Your task to perform on an android device: open app "Walmart Shopping & Grocery" (install if not already installed) and enter user name: "Hans@icloud.com" and password: "executing" Image 0: 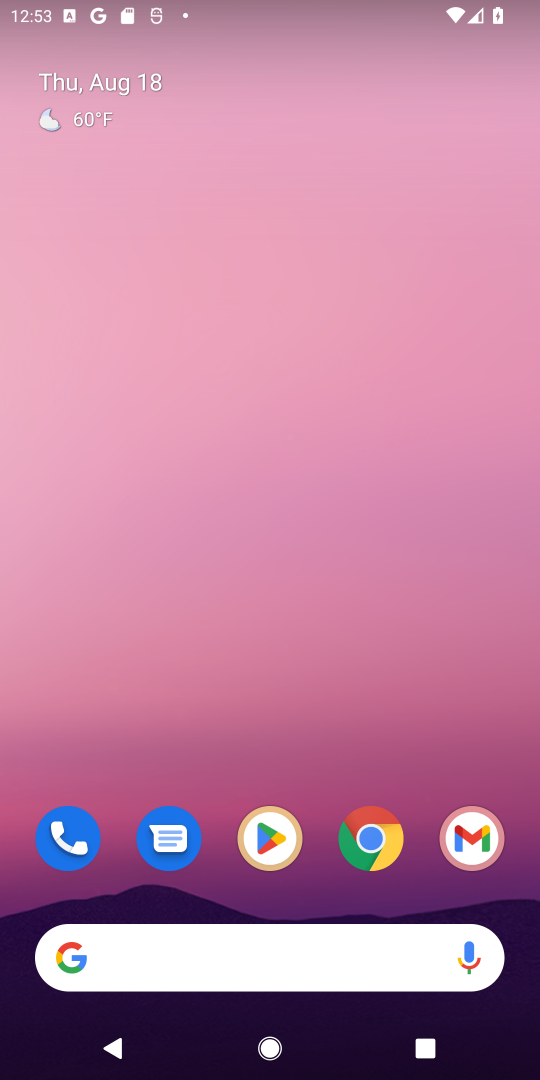
Step 0: click (273, 833)
Your task to perform on an android device: open app "Walmart Shopping & Grocery" (install if not already installed) and enter user name: "Hans@icloud.com" and password: "executing" Image 1: 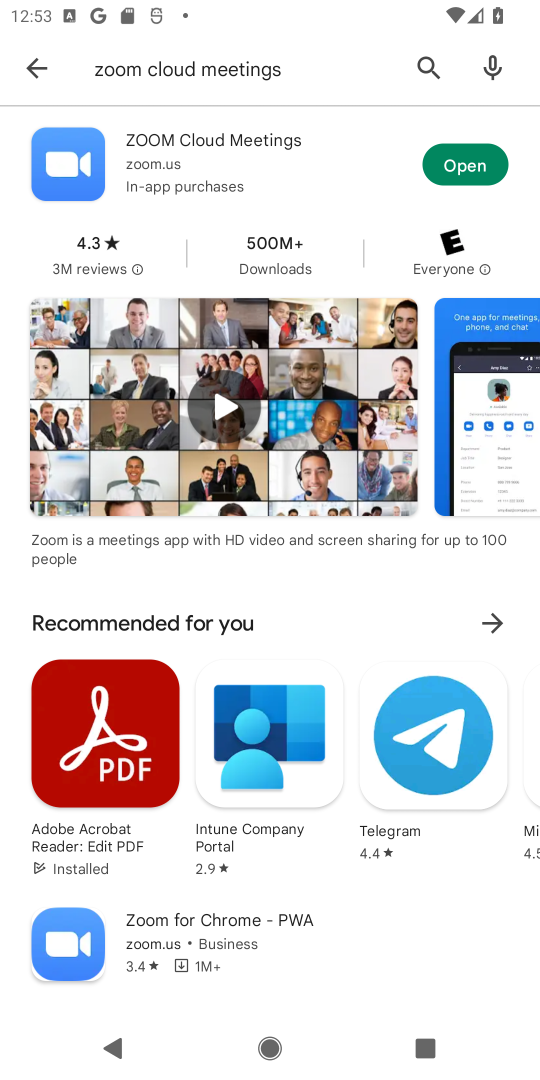
Step 1: click (421, 65)
Your task to perform on an android device: open app "Walmart Shopping & Grocery" (install if not already installed) and enter user name: "Hans@icloud.com" and password: "executing" Image 2: 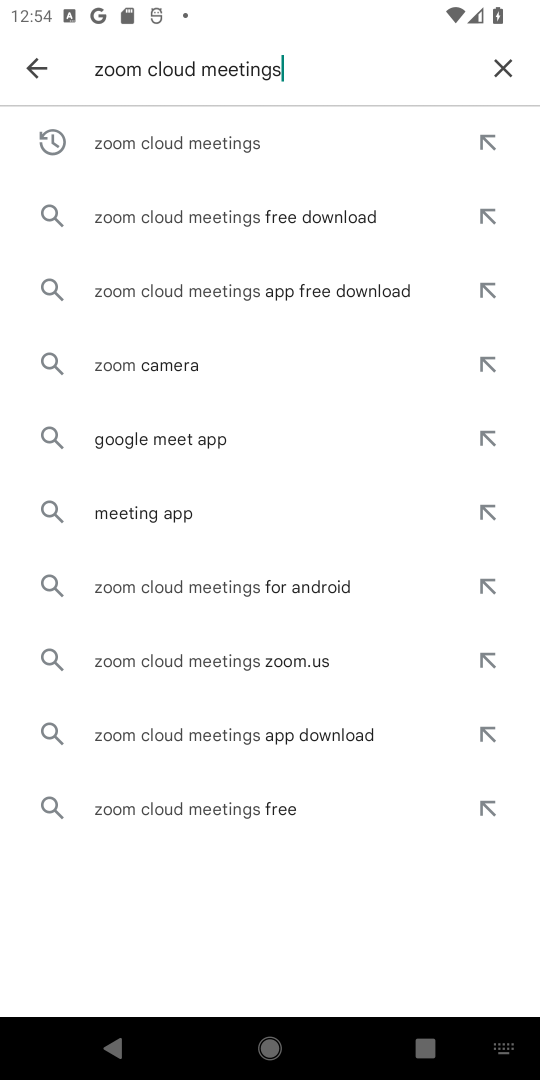
Step 2: click (487, 65)
Your task to perform on an android device: open app "Walmart Shopping & Grocery" (install if not already installed) and enter user name: "Hans@icloud.com" and password: "executing" Image 3: 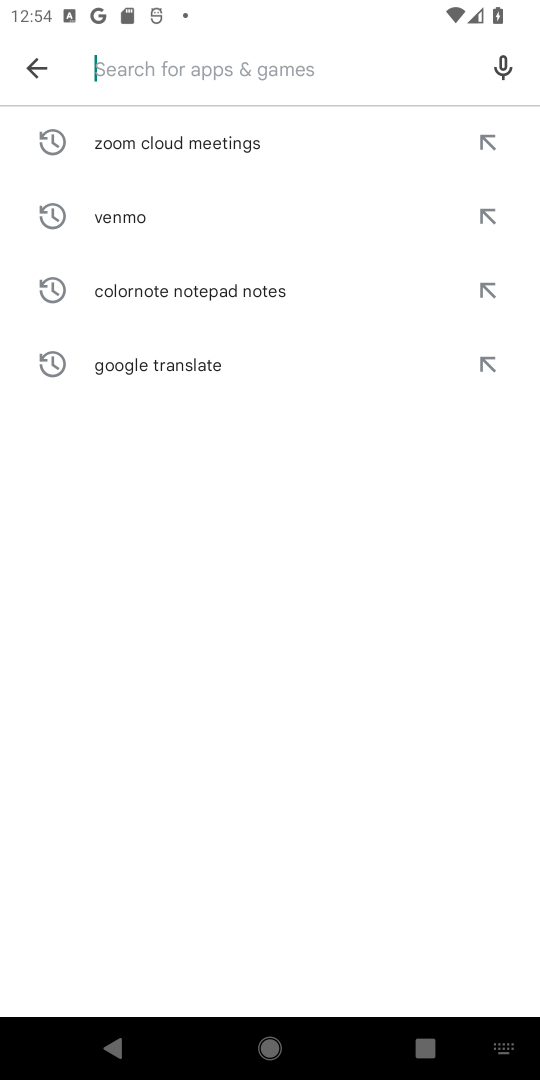
Step 3: type "Walmart Shopping & Grocery"
Your task to perform on an android device: open app "Walmart Shopping & Grocery" (install if not already installed) and enter user name: "Hans@icloud.com" and password: "executing" Image 4: 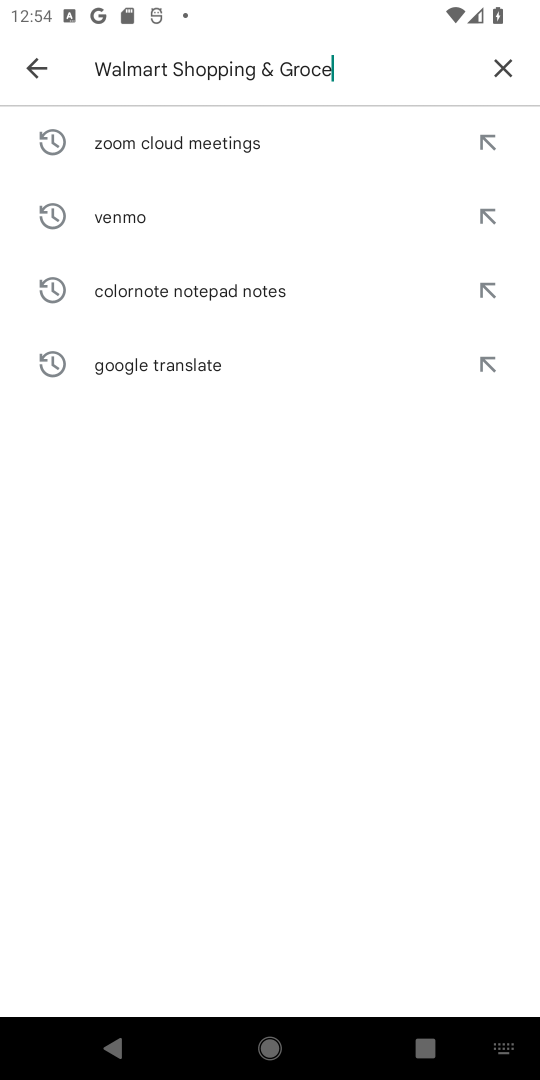
Step 4: type ""
Your task to perform on an android device: open app "Walmart Shopping & Grocery" (install if not already installed) and enter user name: "Hans@icloud.com" and password: "executing" Image 5: 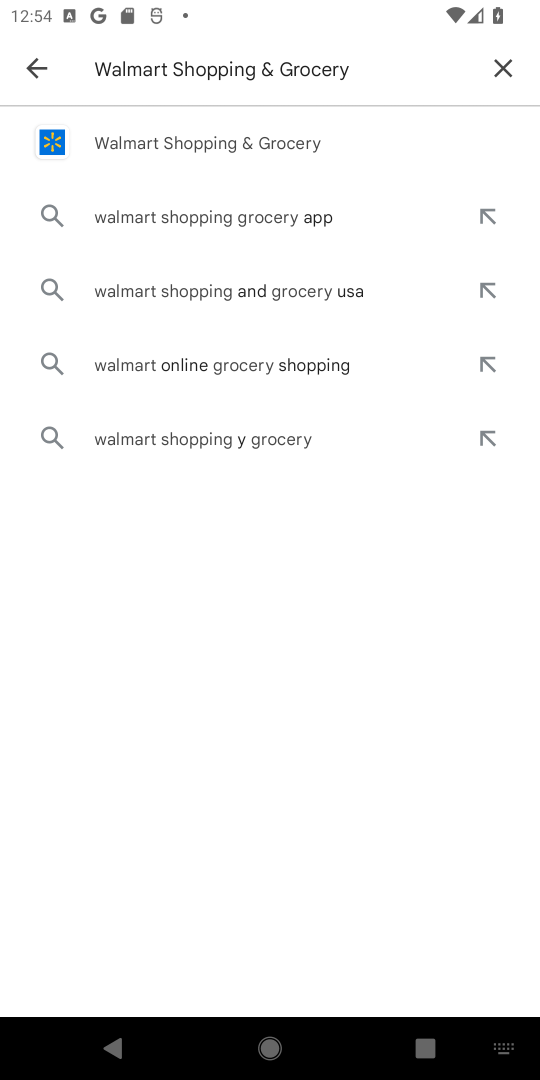
Step 5: click (173, 150)
Your task to perform on an android device: open app "Walmart Shopping & Grocery" (install if not already installed) and enter user name: "Hans@icloud.com" and password: "executing" Image 6: 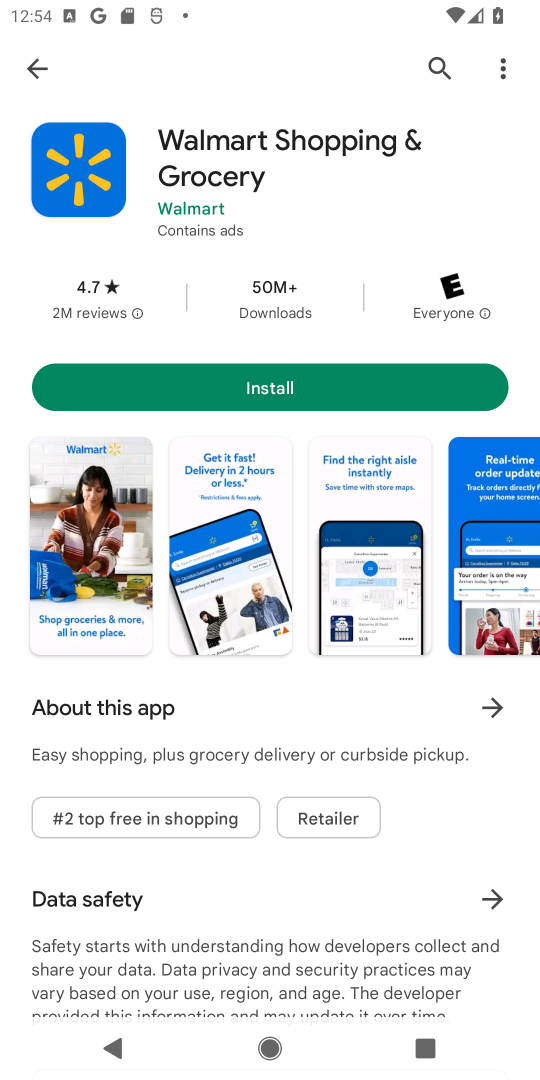
Step 6: click (271, 402)
Your task to perform on an android device: open app "Walmart Shopping & Grocery" (install if not already installed) and enter user name: "Hans@icloud.com" and password: "executing" Image 7: 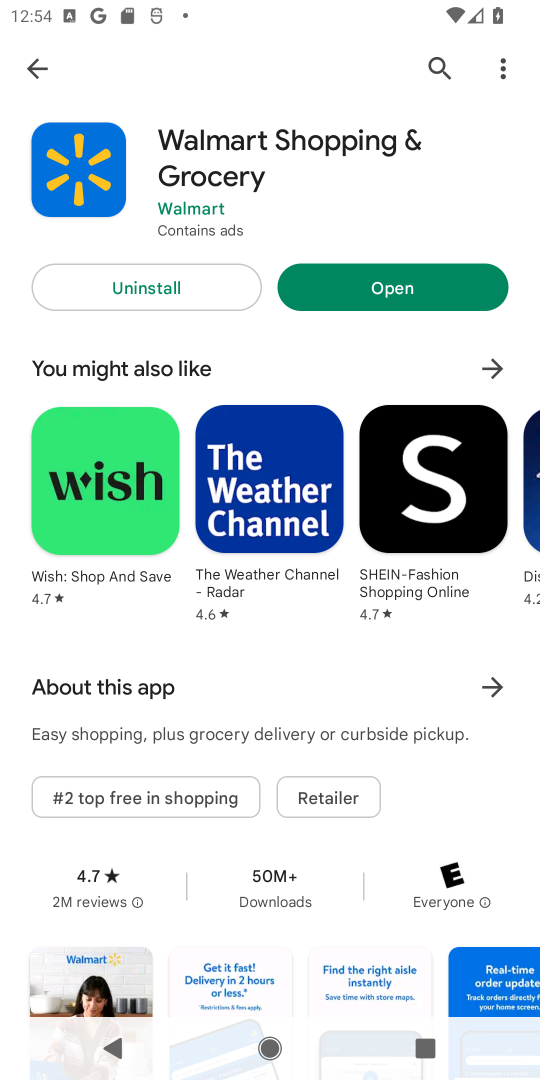
Step 7: click (370, 287)
Your task to perform on an android device: open app "Walmart Shopping & Grocery" (install if not already installed) and enter user name: "Hans@icloud.com" and password: "executing" Image 8: 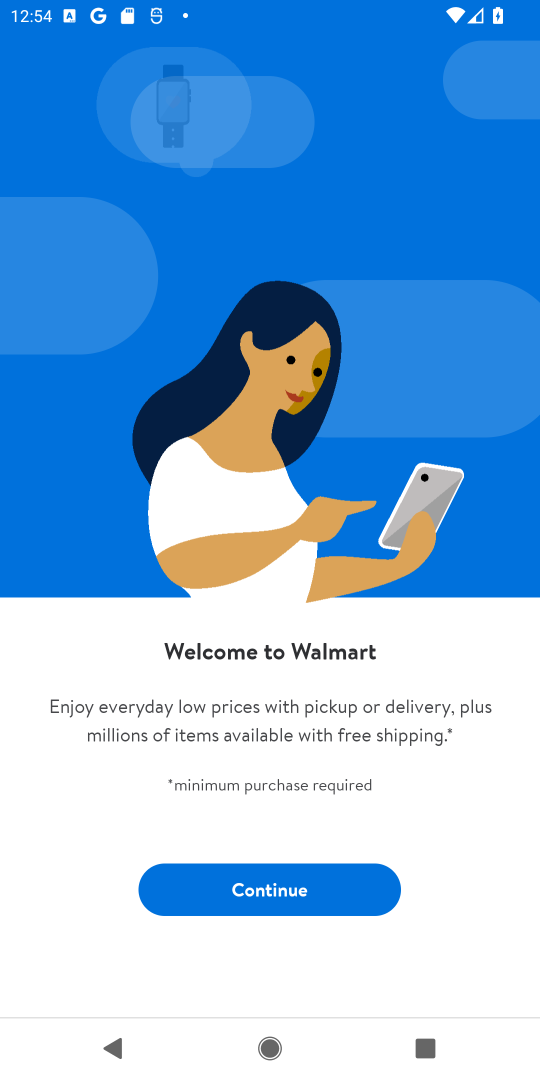
Step 8: task complete